Your task to perform on an android device: open app "LinkedIn" (install if not already installed), go to login, and select forgot password Image 0: 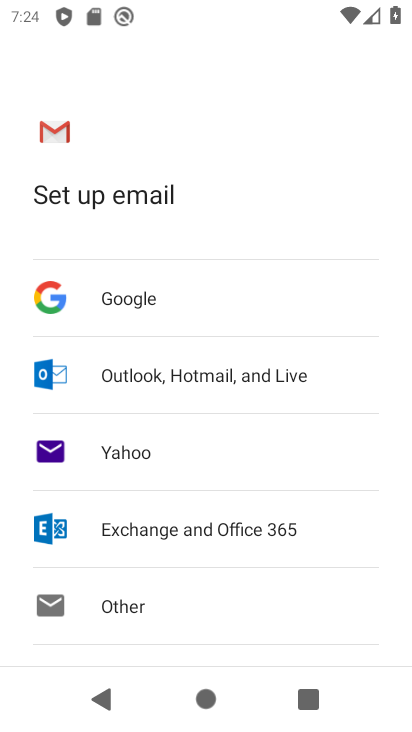
Step 0: press home button
Your task to perform on an android device: open app "LinkedIn" (install if not already installed), go to login, and select forgot password Image 1: 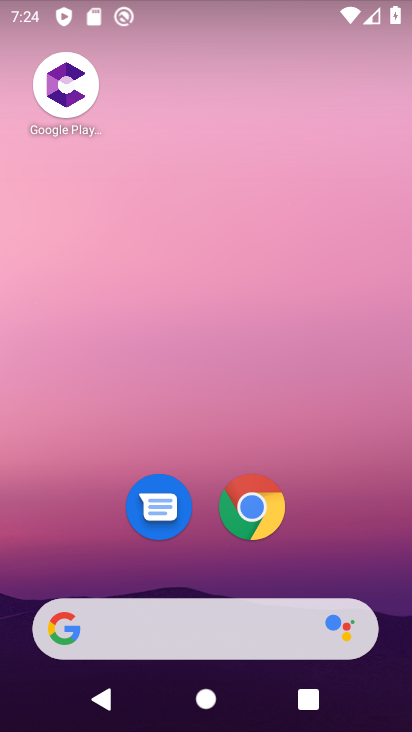
Step 1: drag from (367, 572) to (344, 58)
Your task to perform on an android device: open app "LinkedIn" (install if not already installed), go to login, and select forgot password Image 2: 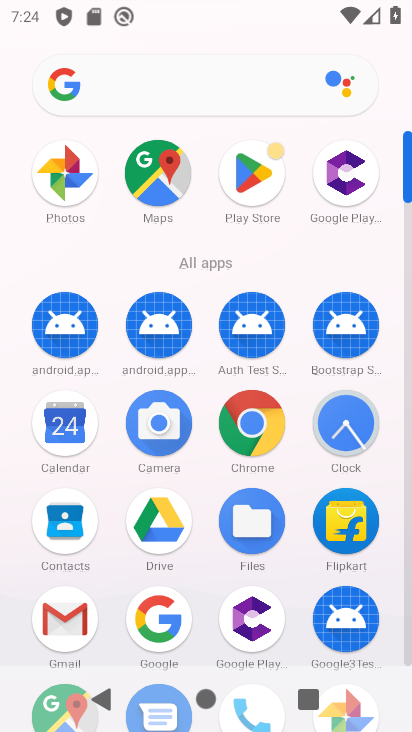
Step 2: click (251, 180)
Your task to perform on an android device: open app "LinkedIn" (install if not already installed), go to login, and select forgot password Image 3: 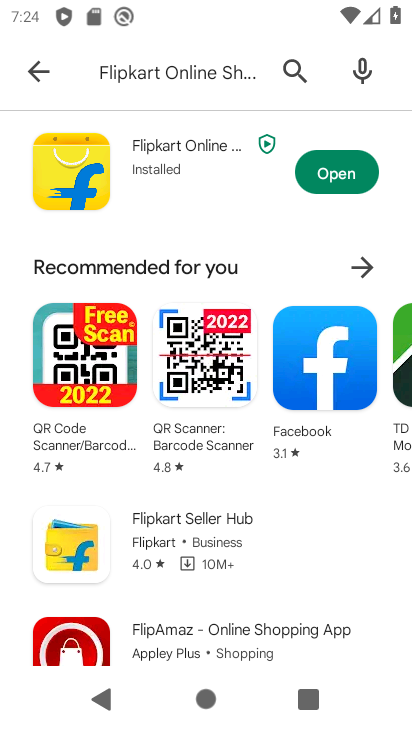
Step 3: press back button
Your task to perform on an android device: open app "LinkedIn" (install if not already installed), go to login, and select forgot password Image 4: 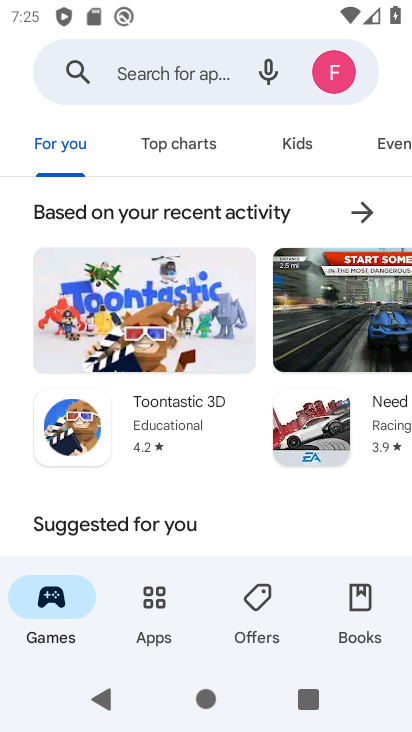
Step 4: click (147, 73)
Your task to perform on an android device: open app "LinkedIn" (install if not already installed), go to login, and select forgot password Image 5: 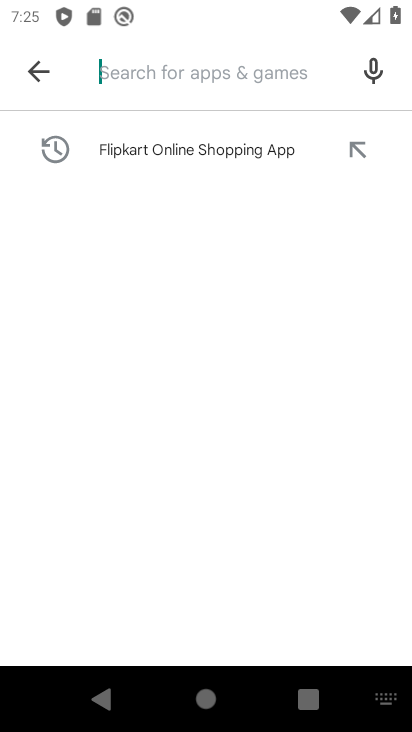
Step 5: type "LinkedIn"
Your task to perform on an android device: open app "LinkedIn" (install if not already installed), go to login, and select forgot password Image 6: 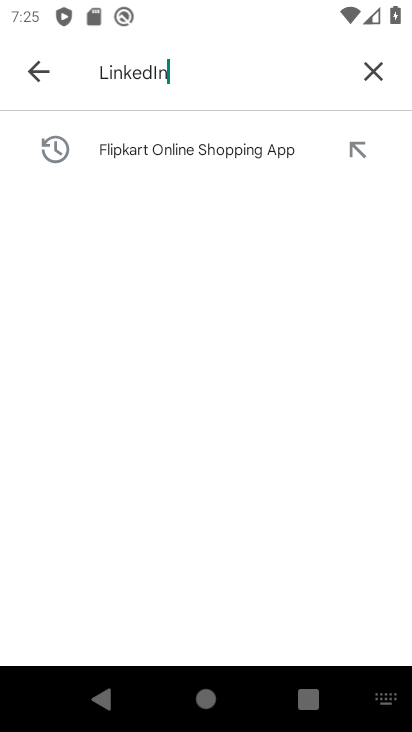
Step 6: press enter
Your task to perform on an android device: open app "LinkedIn" (install if not already installed), go to login, and select forgot password Image 7: 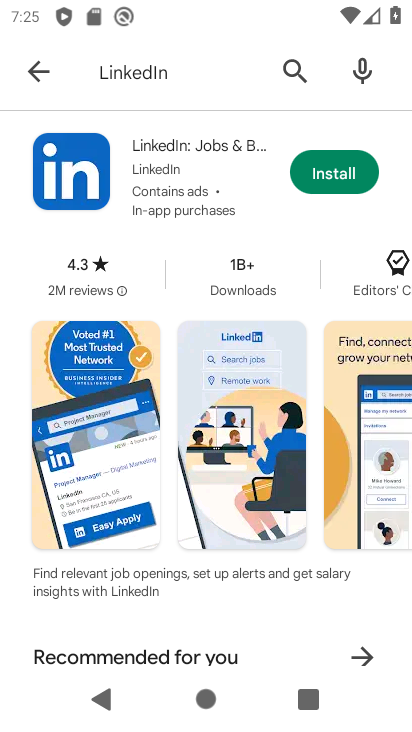
Step 7: click (339, 176)
Your task to perform on an android device: open app "LinkedIn" (install if not already installed), go to login, and select forgot password Image 8: 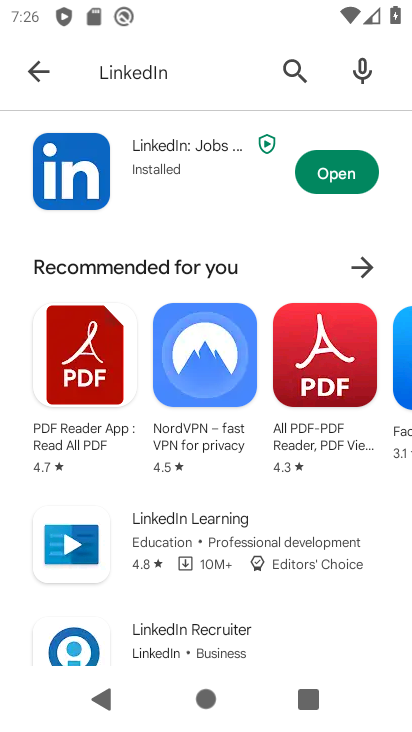
Step 8: click (333, 172)
Your task to perform on an android device: open app "LinkedIn" (install if not already installed), go to login, and select forgot password Image 9: 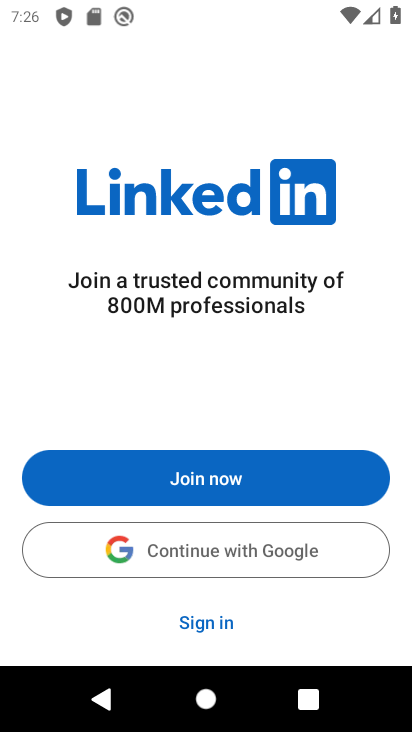
Step 9: click (201, 629)
Your task to perform on an android device: open app "LinkedIn" (install if not already installed), go to login, and select forgot password Image 10: 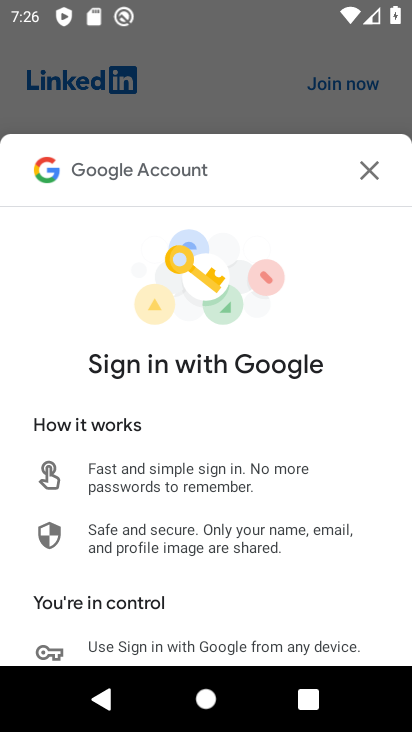
Step 10: click (366, 170)
Your task to perform on an android device: open app "LinkedIn" (install if not already installed), go to login, and select forgot password Image 11: 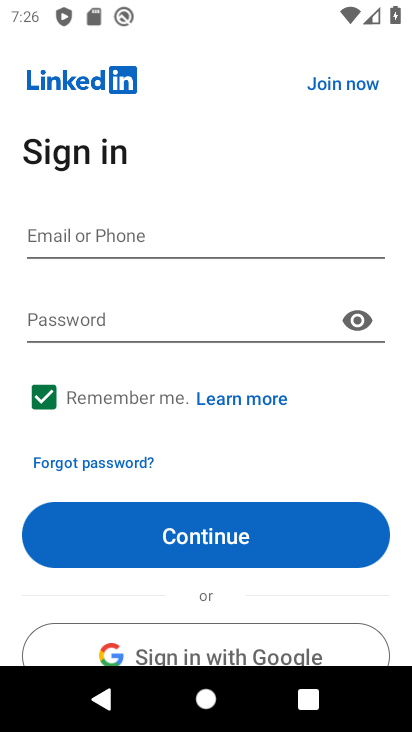
Step 11: click (110, 461)
Your task to perform on an android device: open app "LinkedIn" (install if not already installed), go to login, and select forgot password Image 12: 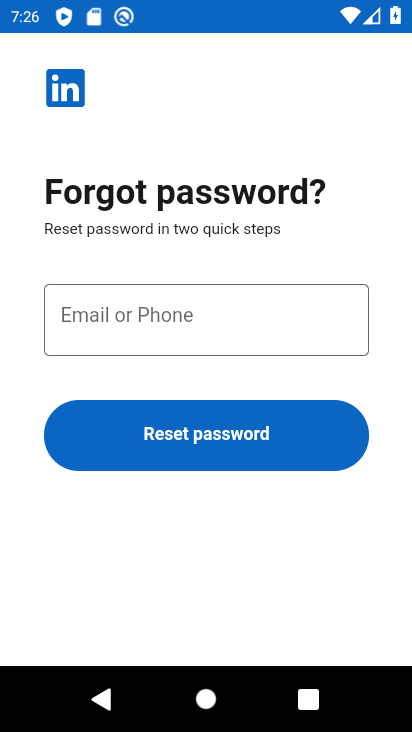
Step 12: task complete